Your task to perform on an android device: open a new tab in the chrome app Image 0: 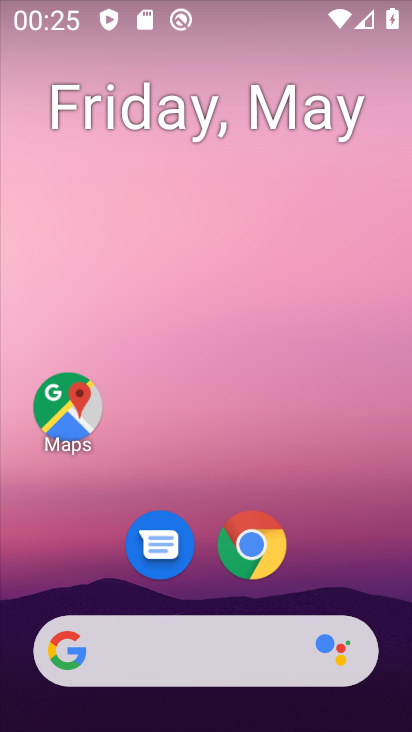
Step 0: click (249, 541)
Your task to perform on an android device: open a new tab in the chrome app Image 1: 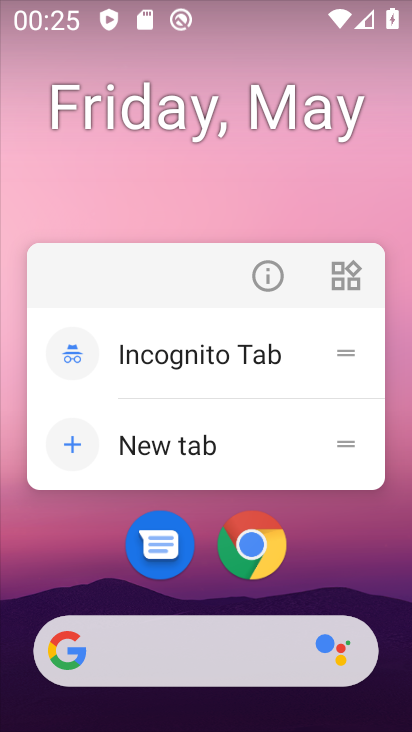
Step 1: click (255, 550)
Your task to perform on an android device: open a new tab in the chrome app Image 2: 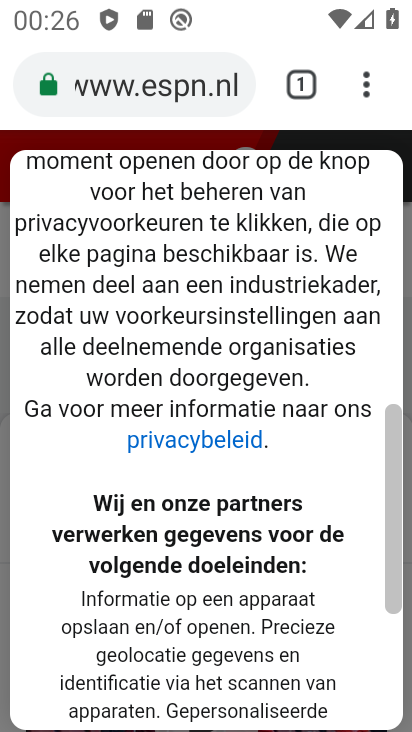
Step 2: click (305, 87)
Your task to perform on an android device: open a new tab in the chrome app Image 3: 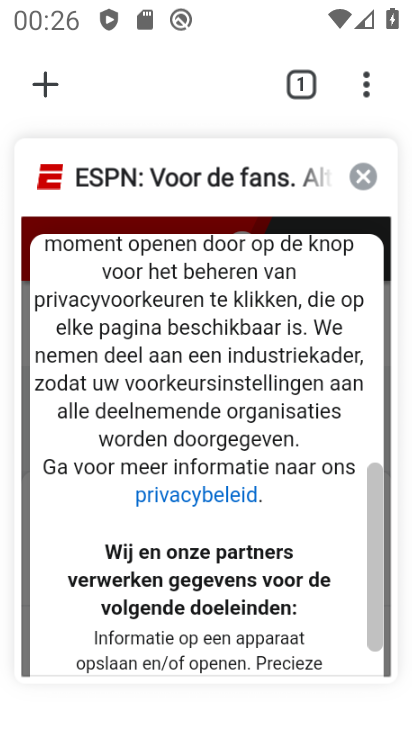
Step 3: click (37, 90)
Your task to perform on an android device: open a new tab in the chrome app Image 4: 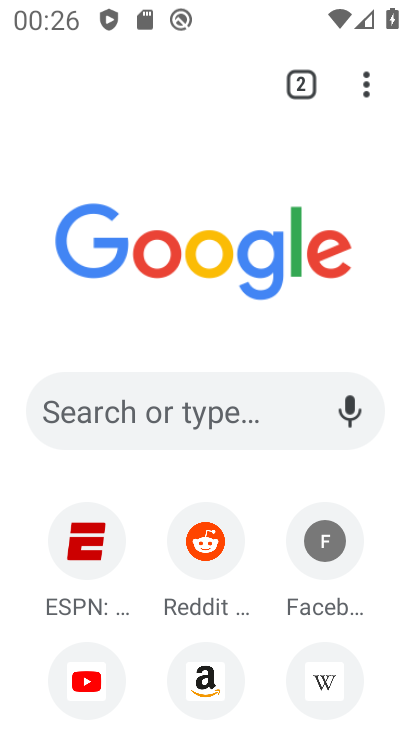
Step 4: task complete